Your task to perform on an android device: toggle wifi Image 0: 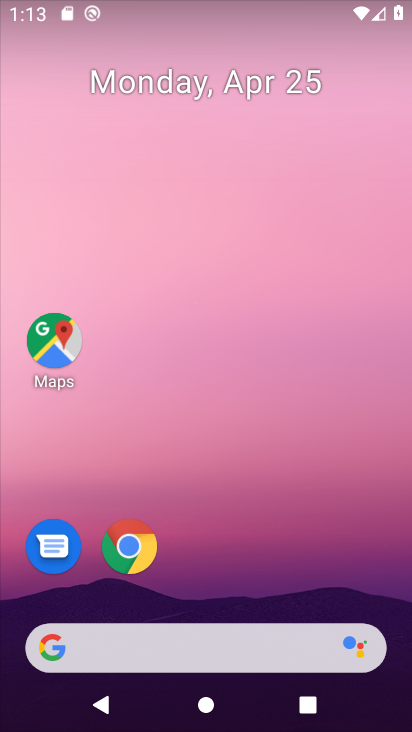
Step 0: drag from (359, 585) to (362, 127)
Your task to perform on an android device: toggle wifi Image 1: 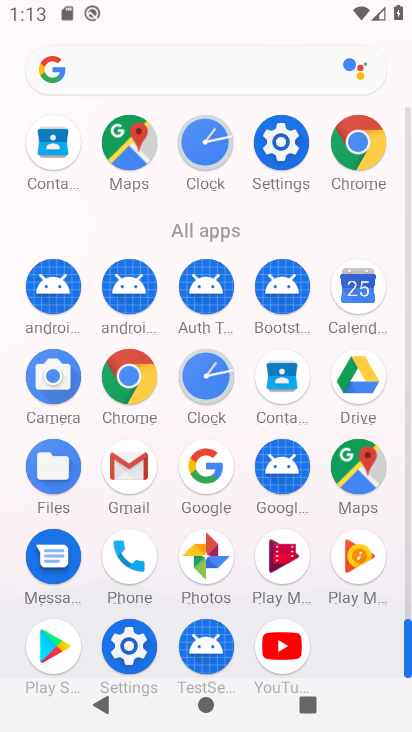
Step 1: click (290, 163)
Your task to perform on an android device: toggle wifi Image 2: 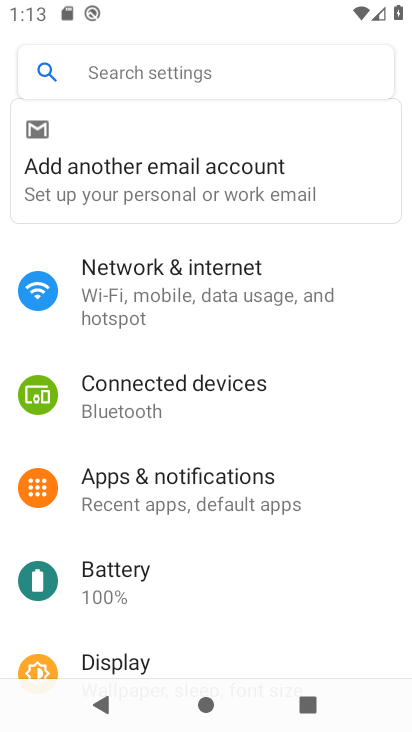
Step 2: click (235, 283)
Your task to perform on an android device: toggle wifi Image 3: 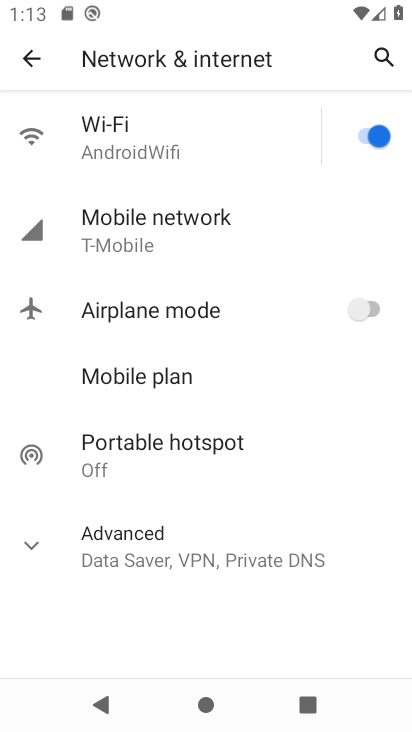
Step 3: click (369, 135)
Your task to perform on an android device: toggle wifi Image 4: 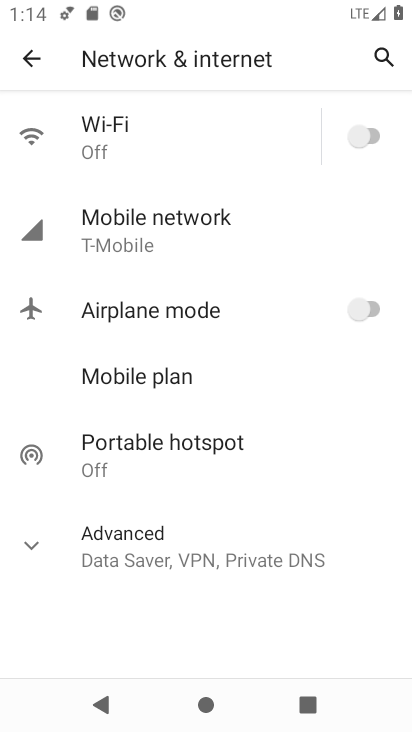
Step 4: task complete